Your task to perform on an android device: toggle javascript in the chrome app Image 0: 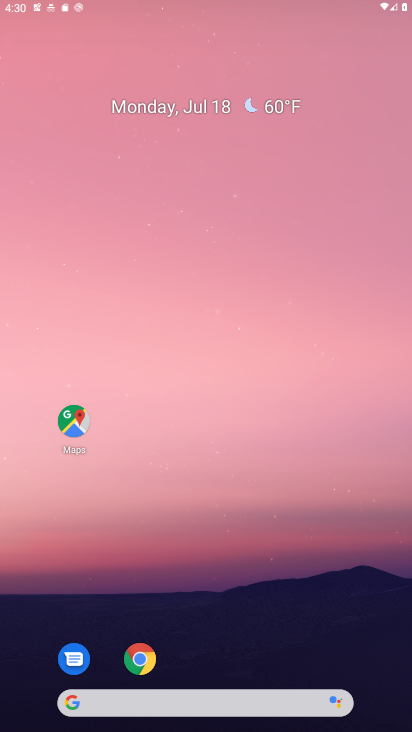
Step 0: drag from (258, 697) to (282, 84)
Your task to perform on an android device: toggle javascript in the chrome app Image 1: 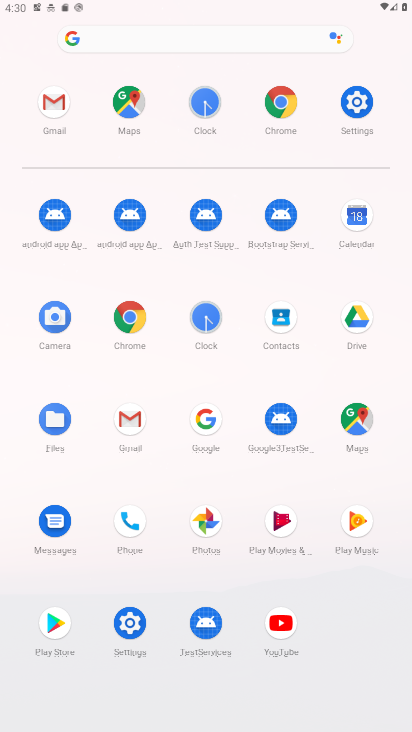
Step 1: click (132, 313)
Your task to perform on an android device: toggle javascript in the chrome app Image 2: 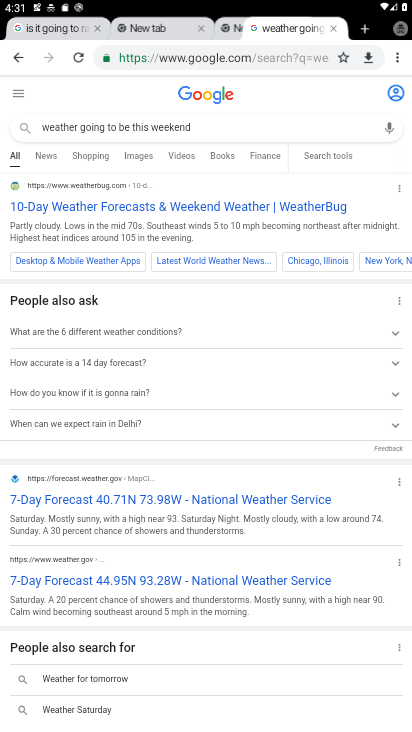
Step 2: drag from (396, 54) to (289, 352)
Your task to perform on an android device: toggle javascript in the chrome app Image 3: 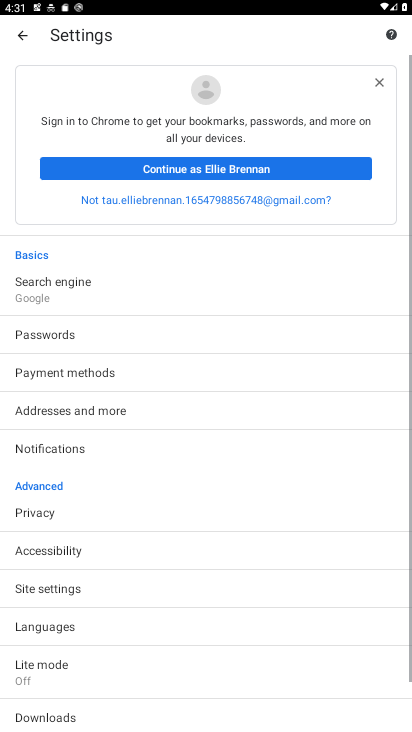
Step 3: drag from (141, 673) to (192, 375)
Your task to perform on an android device: toggle javascript in the chrome app Image 4: 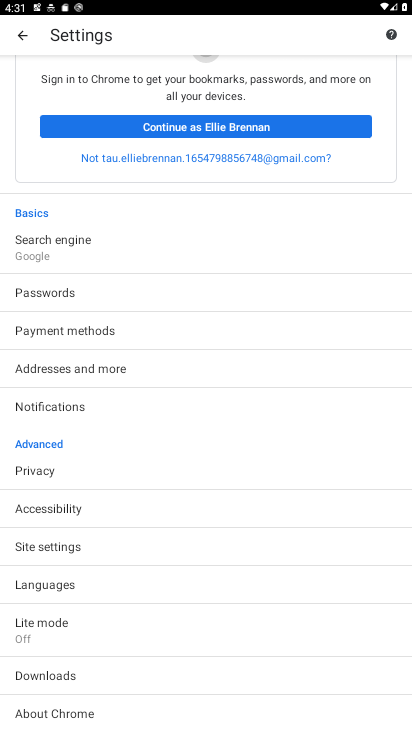
Step 4: click (76, 551)
Your task to perform on an android device: toggle javascript in the chrome app Image 5: 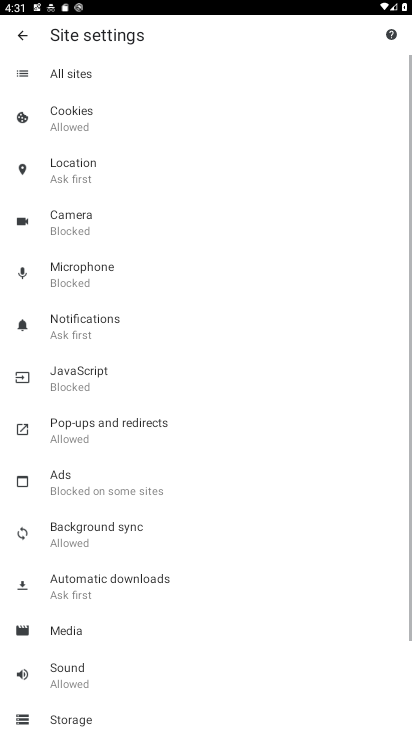
Step 5: click (95, 373)
Your task to perform on an android device: toggle javascript in the chrome app Image 6: 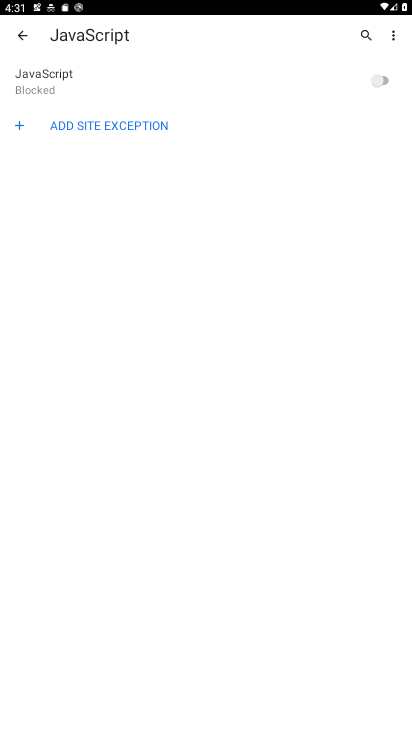
Step 6: click (384, 77)
Your task to perform on an android device: toggle javascript in the chrome app Image 7: 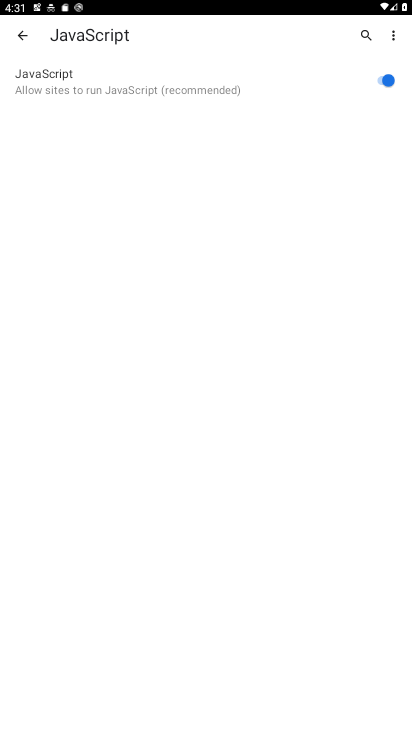
Step 7: task complete